Your task to perform on an android device: install app "VLC for Android" Image 0: 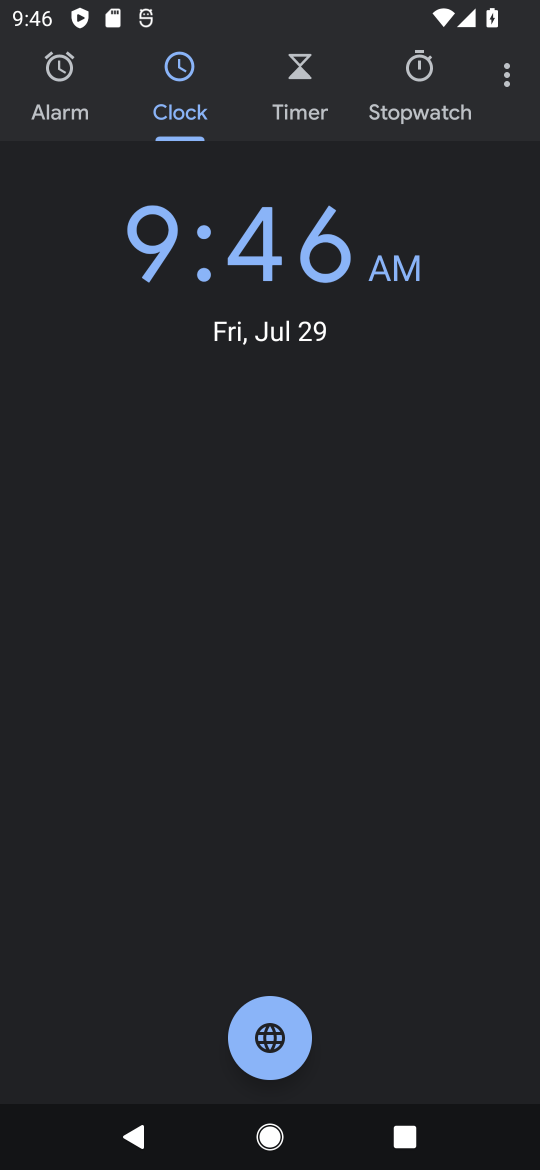
Step 0: press home button
Your task to perform on an android device: install app "VLC for Android" Image 1: 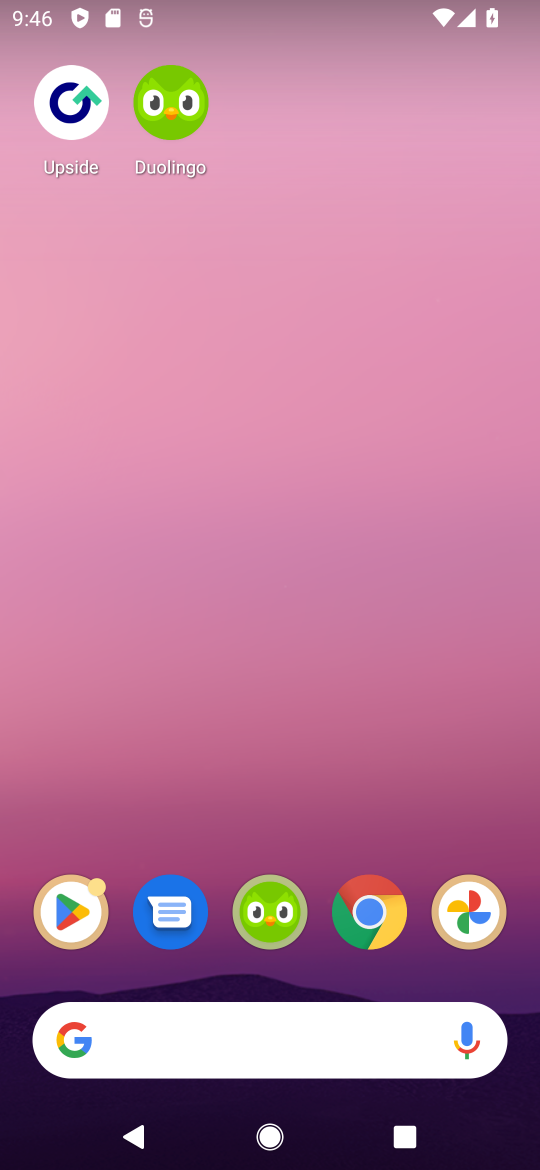
Step 1: click (62, 906)
Your task to perform on an android device: install app "VLC for Android" Image 2: 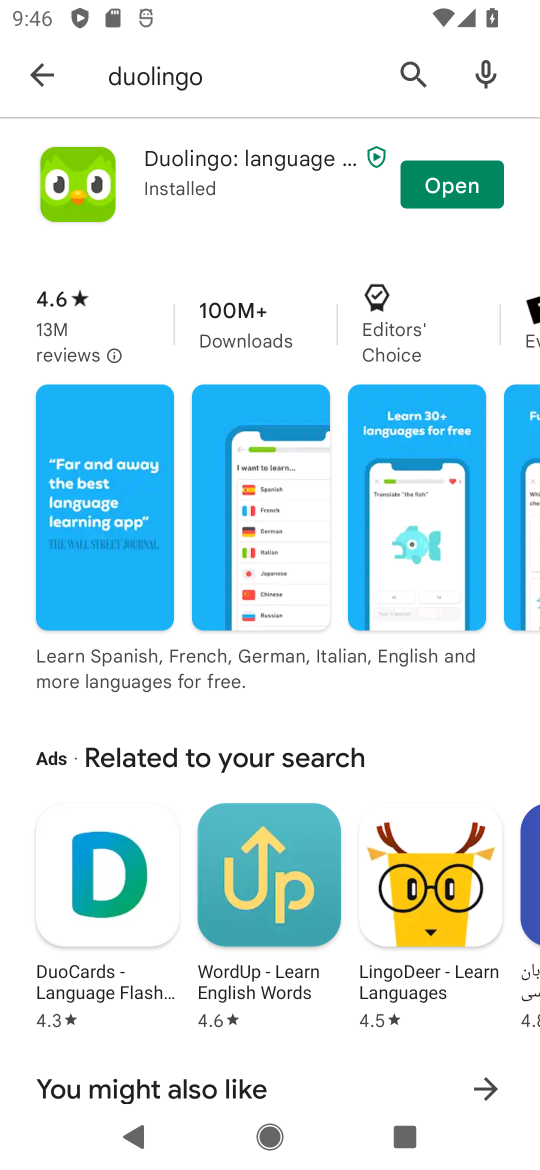
Step 2: click (410, 80)
Your task to perform on an android device: install app "VLC for Android" Image 3: 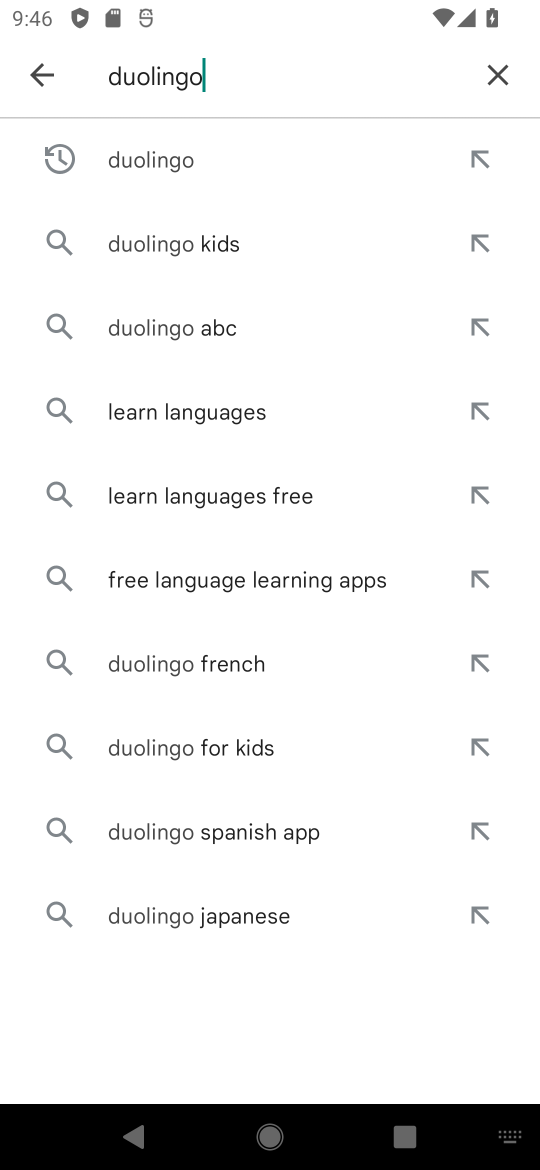
Step 3: click (492, 92)
Your task to perform on an android device: install app "VLC for Android" Image 4: 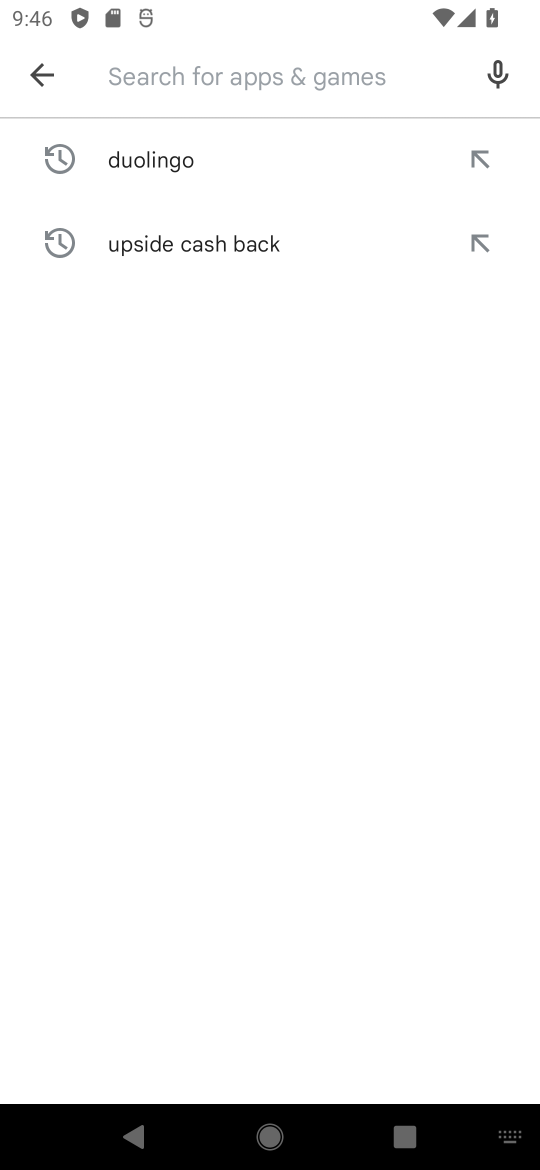
Step 4: type "vlc "
Your task to perform on an android device: install app "VLC for Android" Image 5: 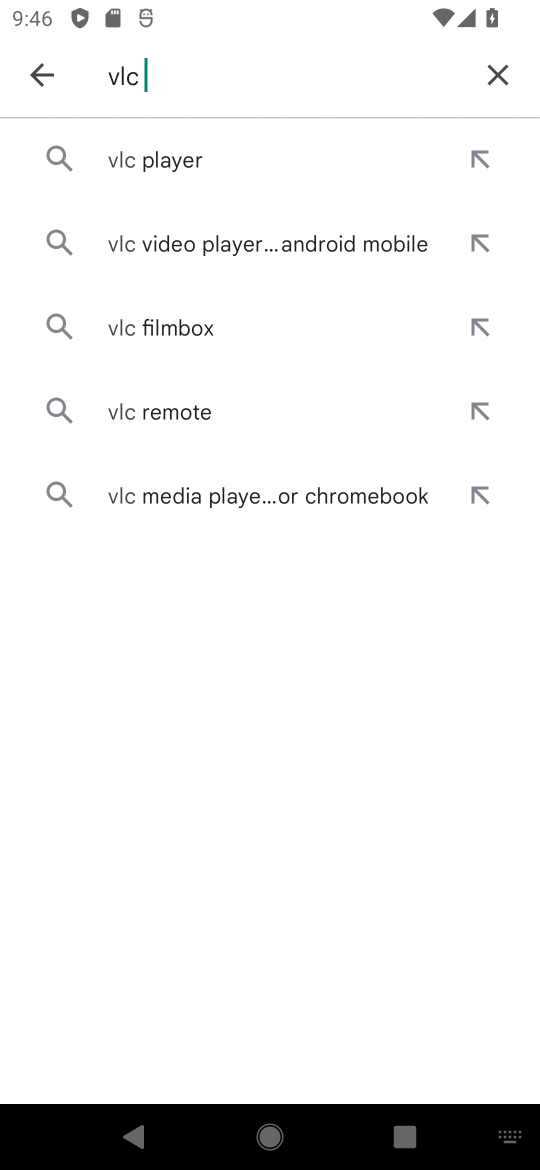
Step 5: click (232, 155)
Your task to perform on an android device: install app "VLC for Android" Image 6: 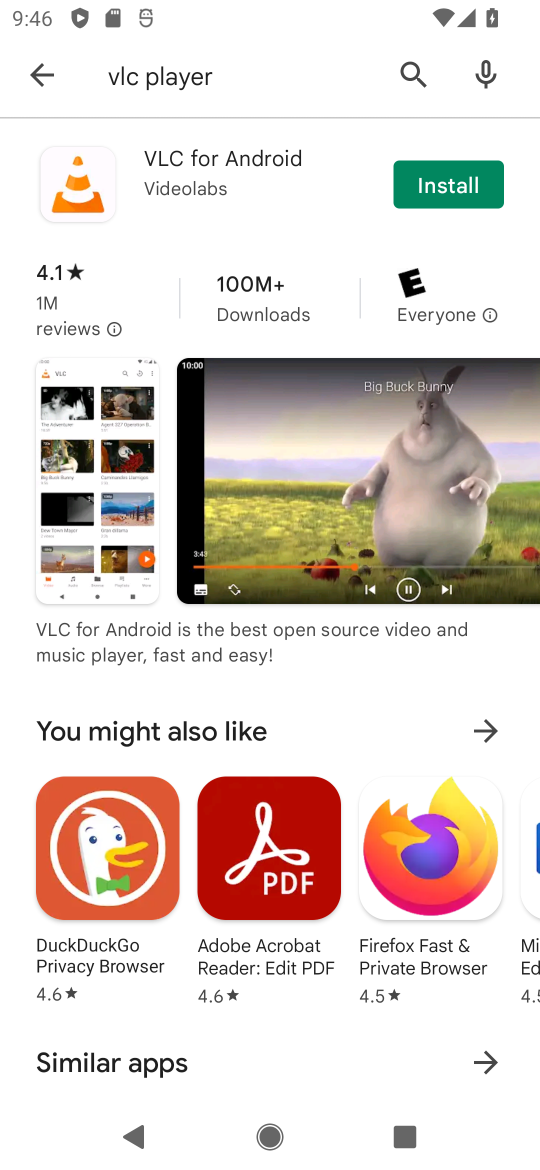
Step 6: click (473, 178)
Your task to perform on an android device: install app "VLC for Android" Image 7: 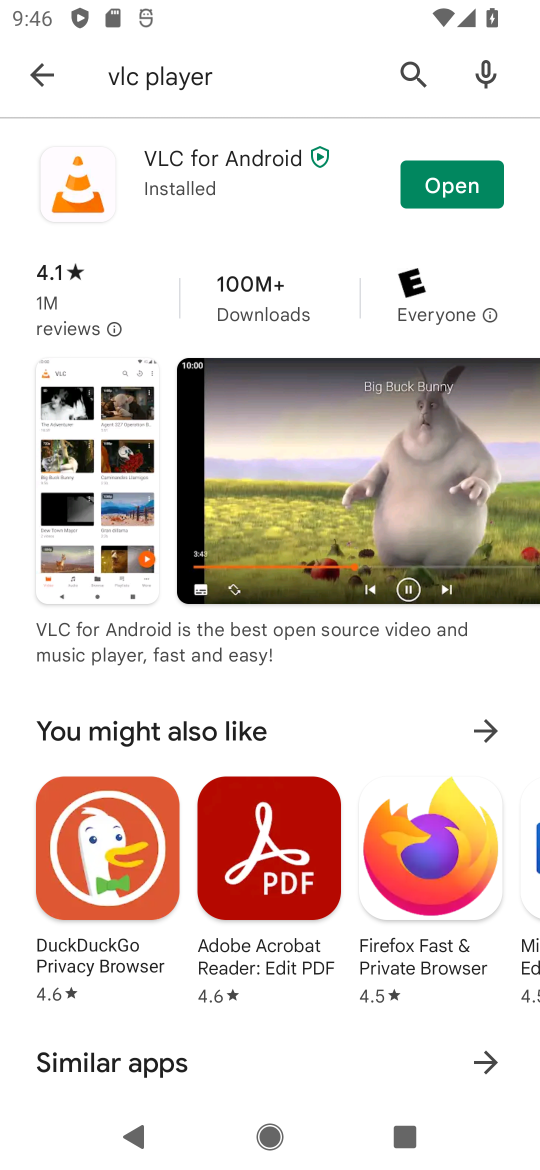
Step 7: task complete